Your task to perform on an android device: Open Reddit.com Image 0: 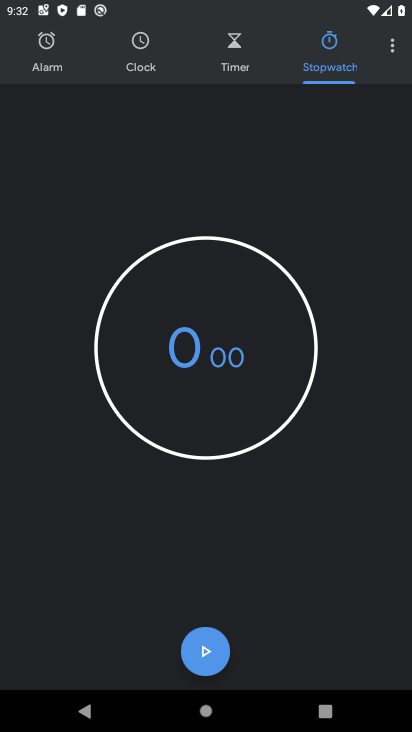
Step 0: press home button
Your task to perform on an android device: Open Reddit.com Image 1: 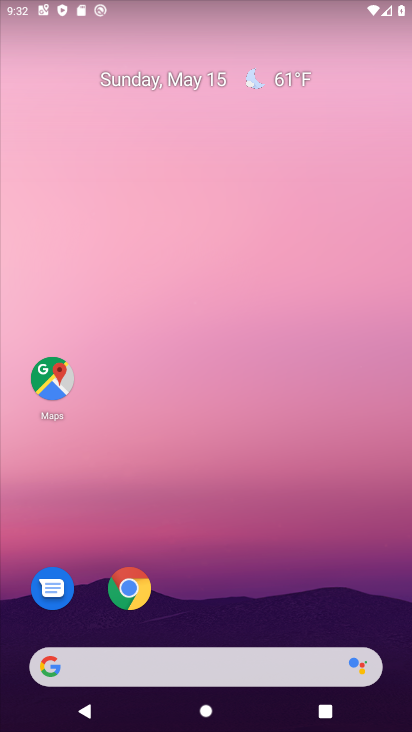
Step 1: drag from (203, 551) to (187, 605)
Your task to perform on an android device: Open Reddit.com Image 2: 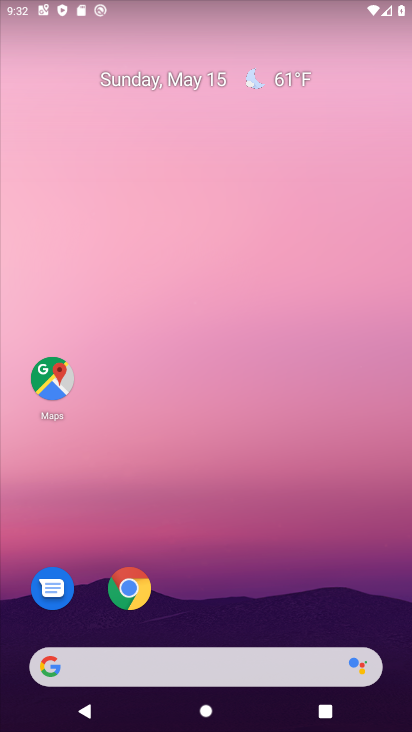
Step 2: click (133, 592)
Your task to perform on an android device: Open Reddit.com Image 3: 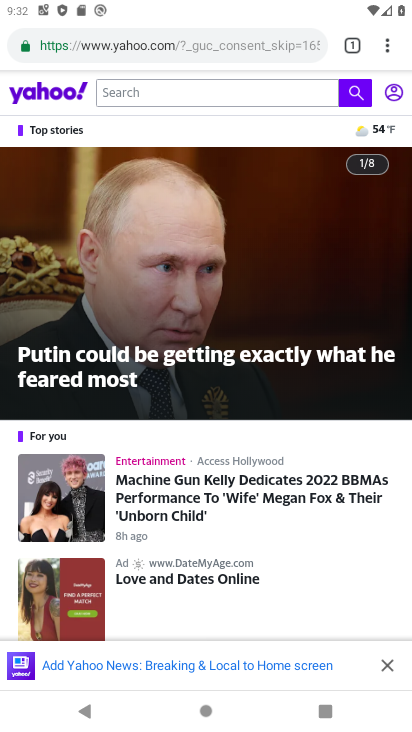
Step 3: click (195, 41)
Your task to perform on an android device: Open Reddit.com Image 4: 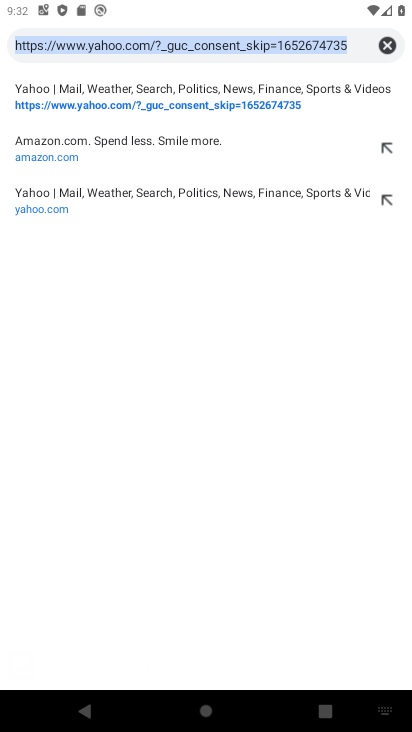
Step 4: type "Reddit.com"
Your task to perform on an android device: Open Reddit.com Image 5: 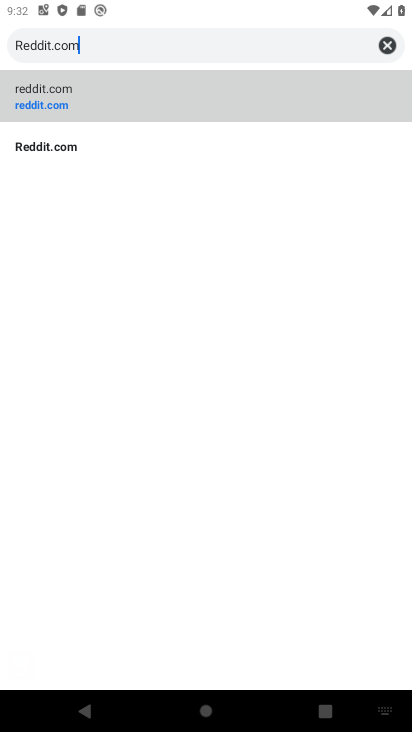
Step 5: click (64, 111)
Your task to perform on an android device: Open Reddit.com Image 6: 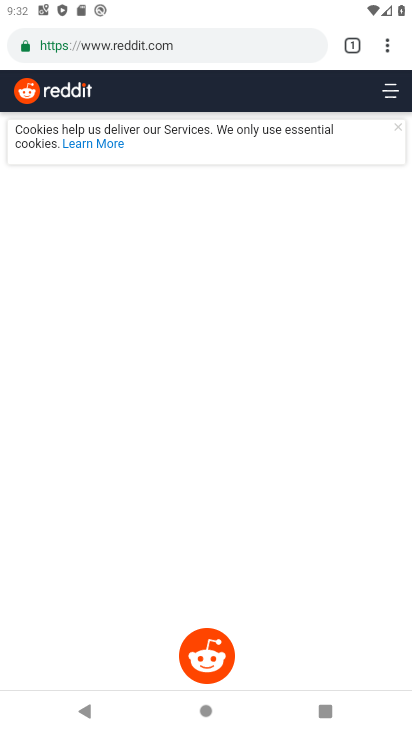
Step 6: task complete